Your task to perform on an android device: see sites visited before in the chrome app Image 0: 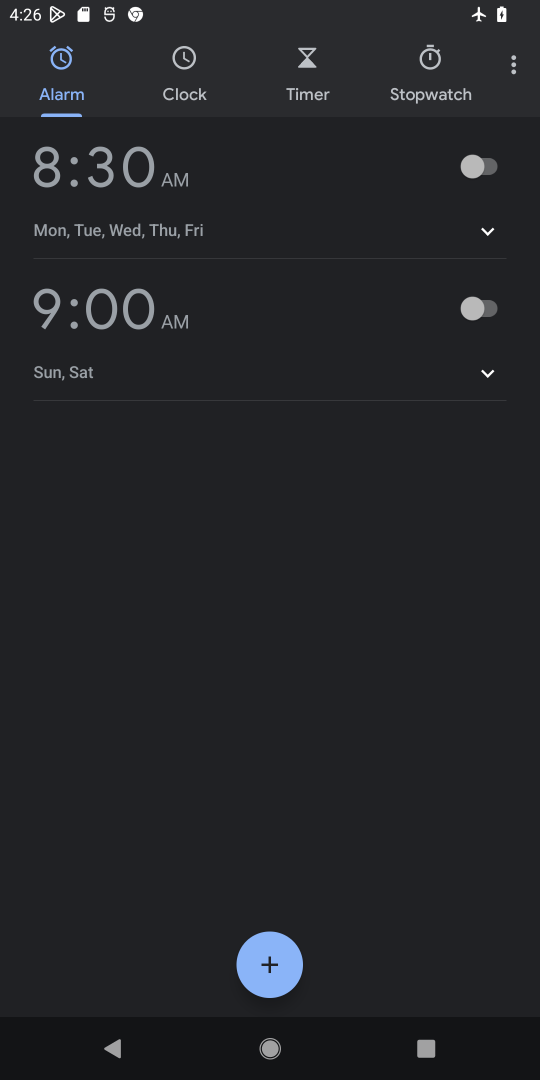
Step 0: press home button
Your task to perform on an android device: see sites visited before in the chrome app Image 1: 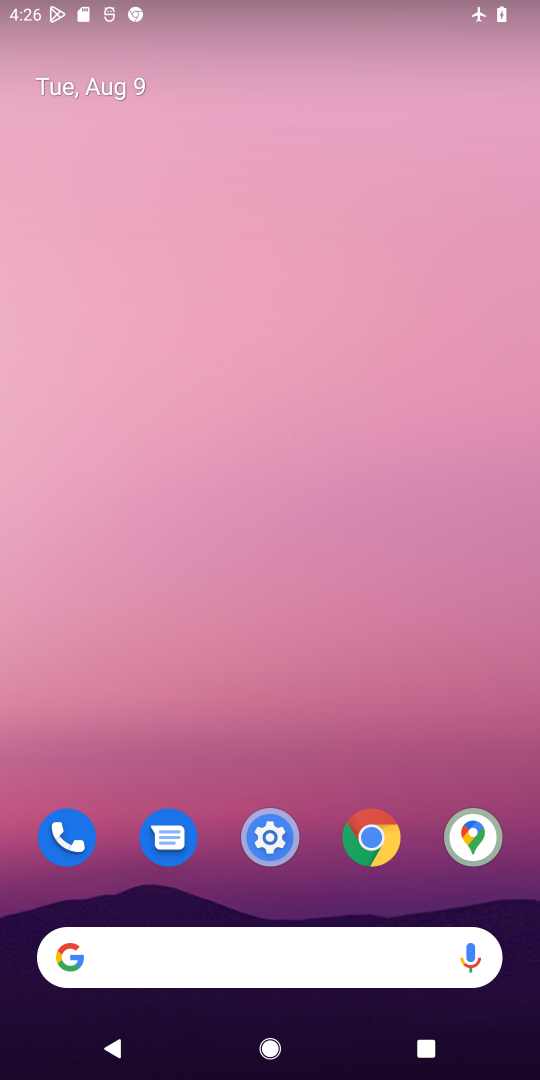
Step 1: drag from (352, 903) to (297, 215)
Your task to perform on an android device: see sites visited before in the chrome app Image 2: 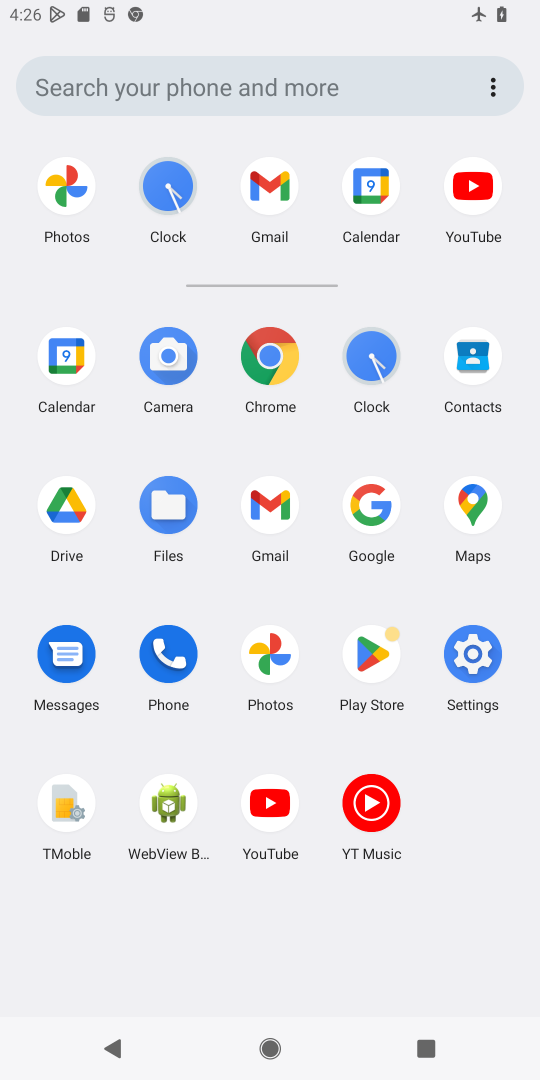
Step 2: click (288, 343)
Your task to perform on an android device: see sites visited before in the chrome app Image 3: 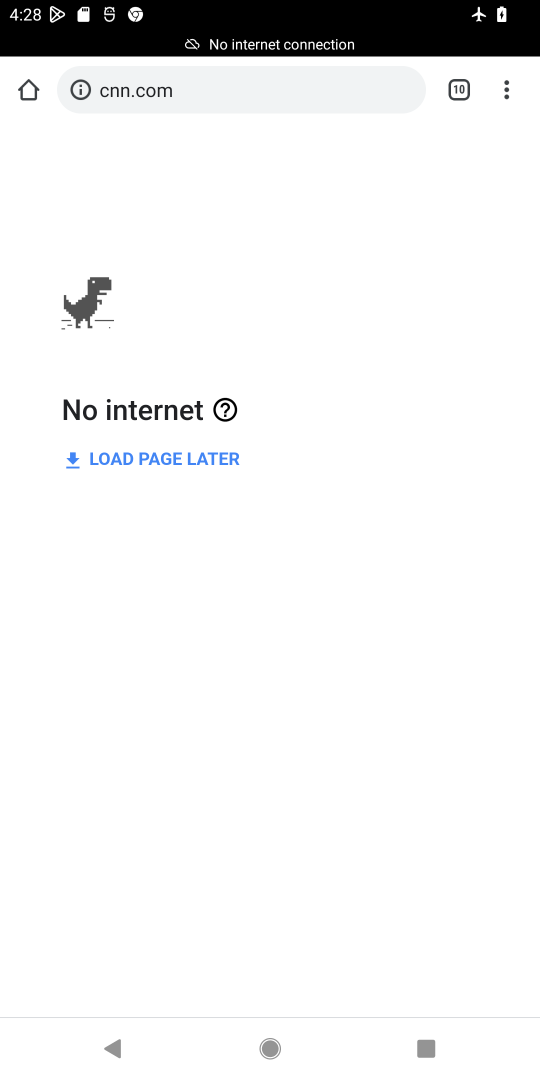
Step 3: task complete